Your task to perform on an android device: check battery use Image 0: 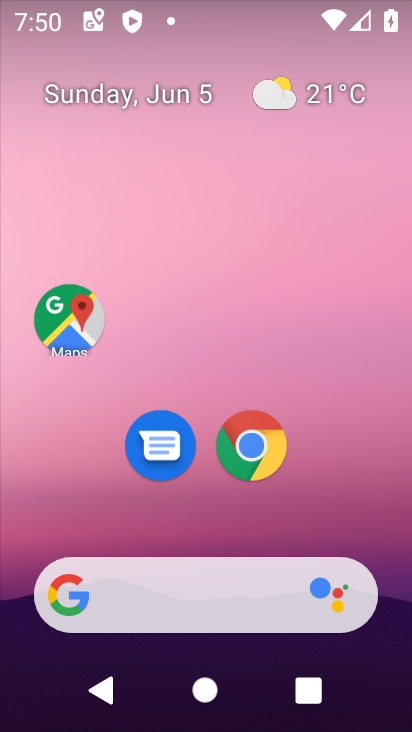
Step 0: drag from (355, 489) to (322, 40)
Your task to perform on an android device: check battery use Image 1: 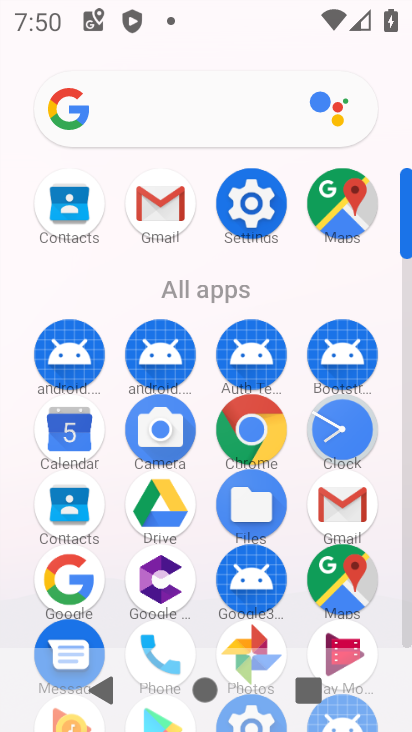
Step 1: click (240, 203)
Your task to perform on an android device: check battery use Image 2: 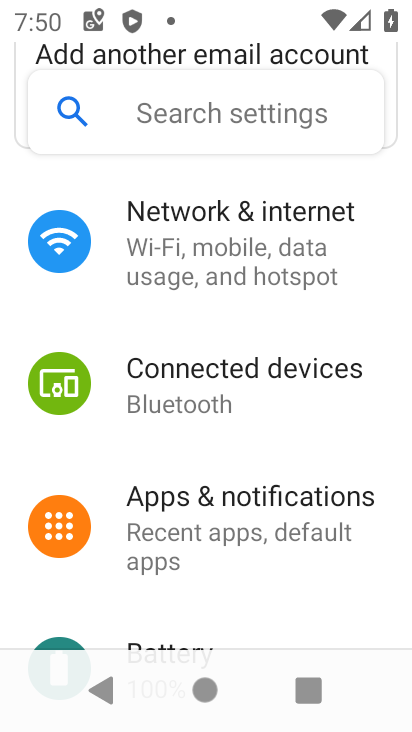
Step 2: drag from (220, 584) to (204, 372)
Your task to perform on an android device: check battery use Image 3: 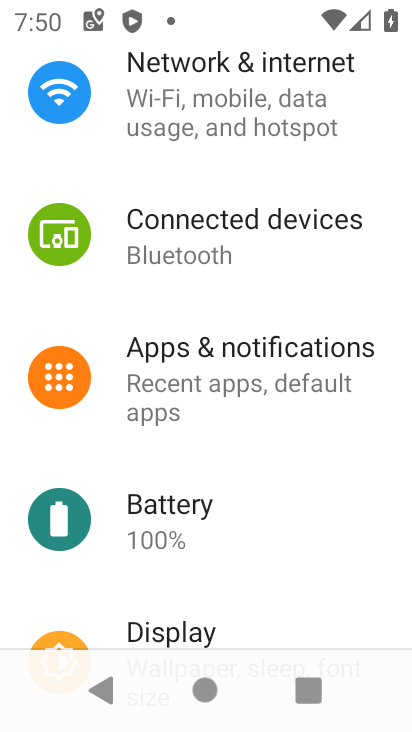
Step 3: click (198, 491)
Your task to perform on an android device: check battery use Image 4: 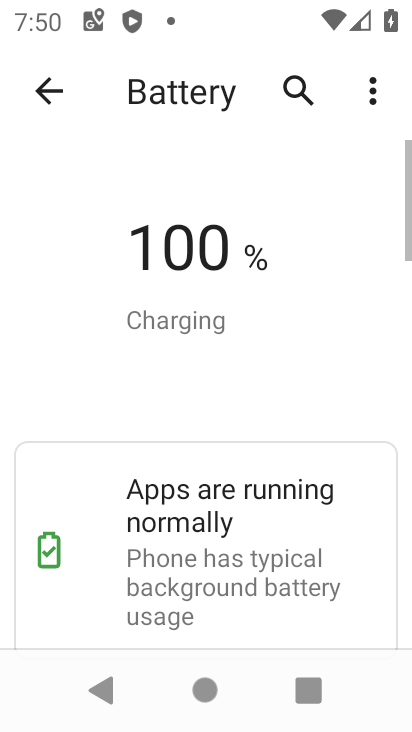
Step 4: click (360, 87)
Your task to perform on an android device: check battery use Image 5: 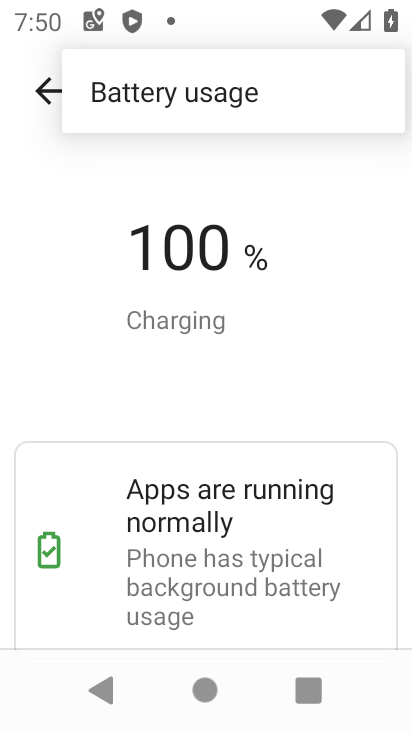
Step 5: click (231, 106)
Your task to perform on an android device: check battery use Image 6: 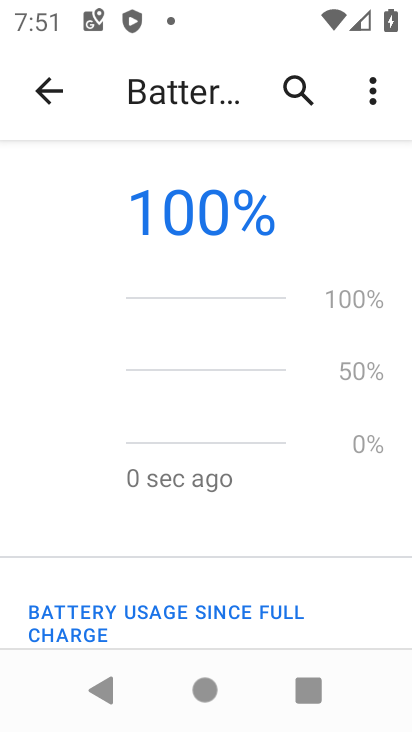
Step 6: task complete